Your task to perform on an android device: Open the settings Image 0: 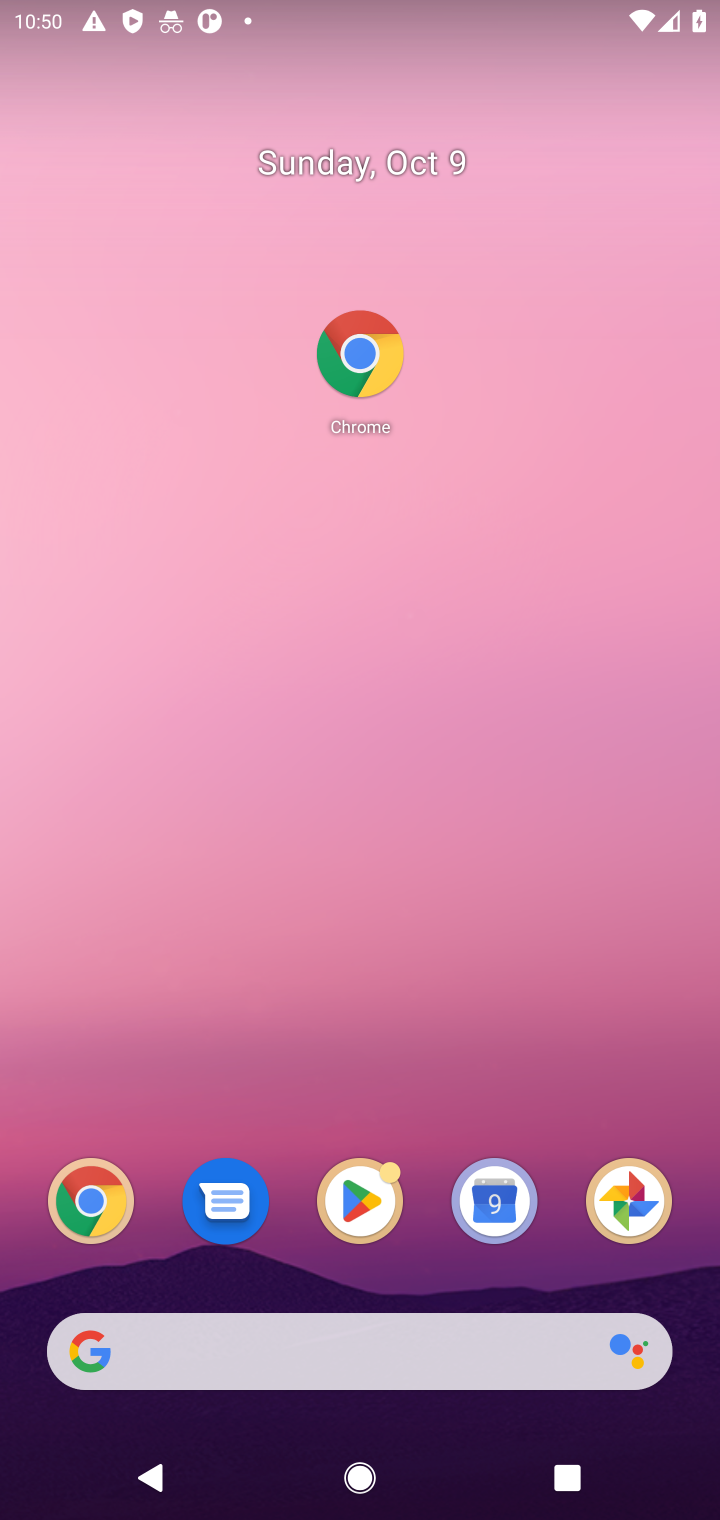
Step 0: drag from (317, 1279) to (295, 182)
Your task to perform on an android device: Open the settings Image 1: 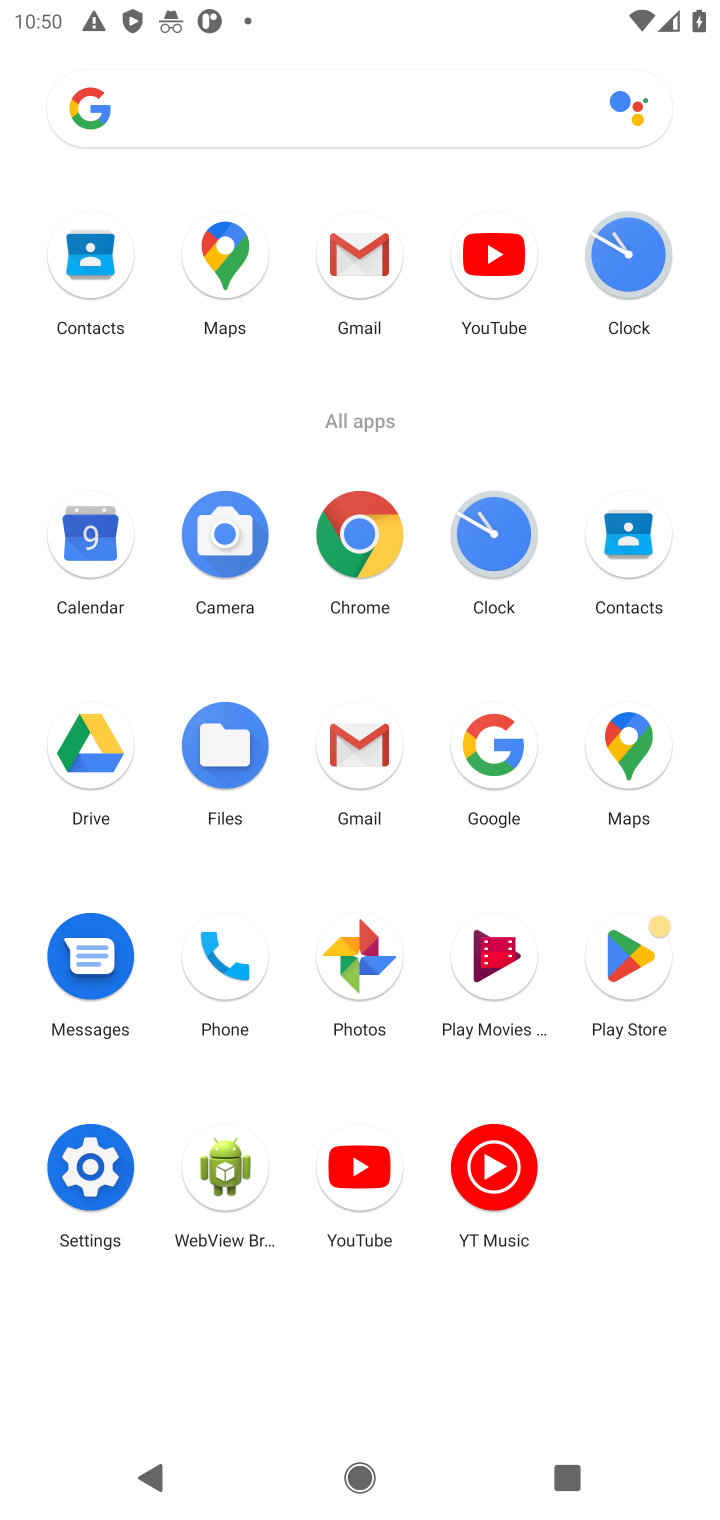
Step 1: click (79, 1200)
Your task to perform on an android device: Open the settings Image 2: 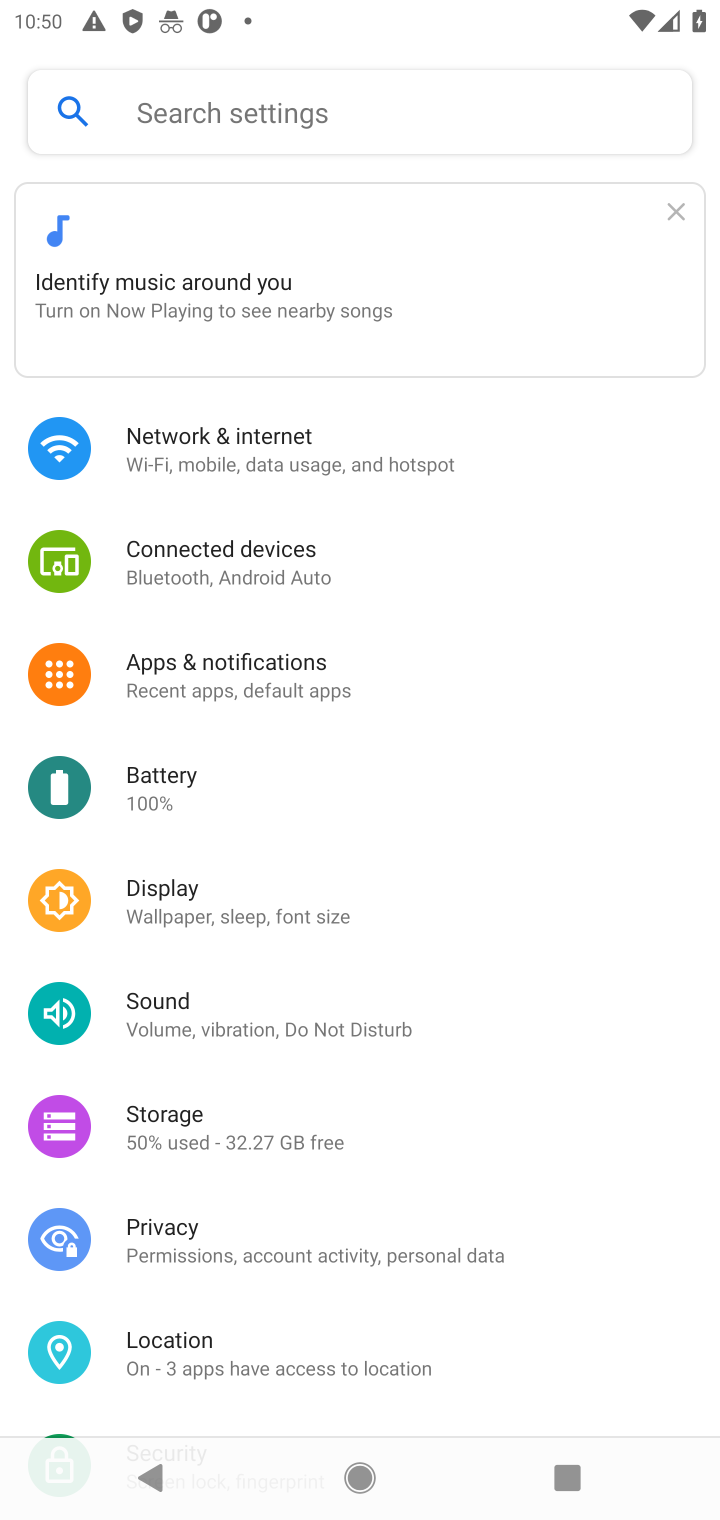
Step 2: task complete